Your task to perform on an android device: Go to network settings Image 0: 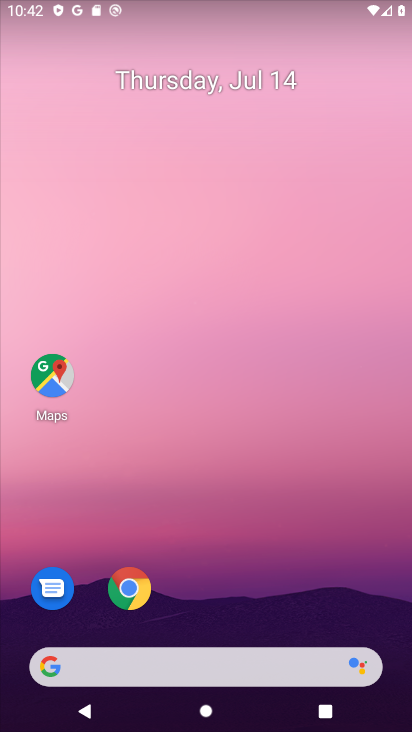
Step 0: press home button
Your task to perform on an android device: Go to network settings Image 1: 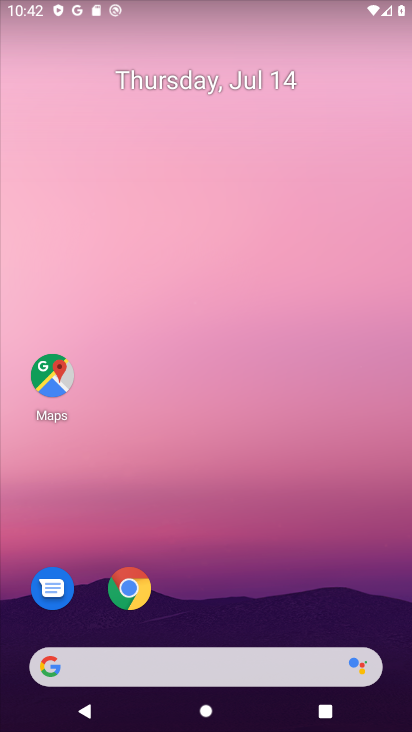
Step 1: drag from (294, 612) to (289, 107)
Your task to perform on an android device: Go to network settings Image 2: 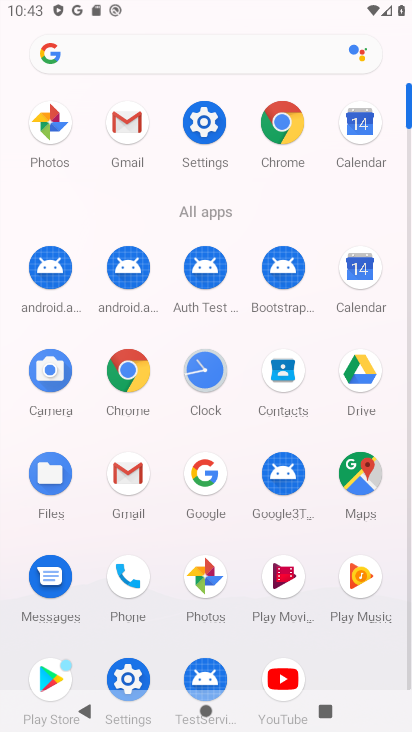
Step 2: click (130, 677)
Your task to perform on an android device: Go to network settings Image 3: 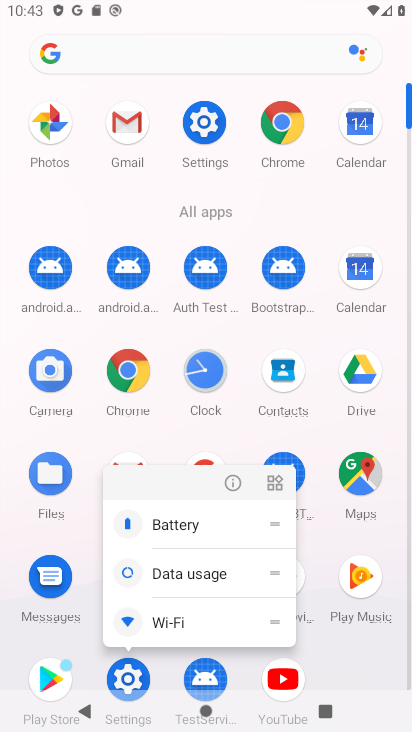
Step 3: click (128, 672)
Your task to perform on an android device: Go to network settings Image 4: 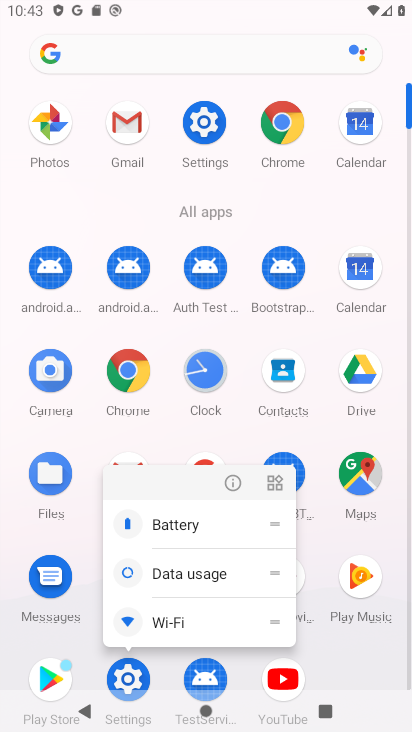
Step 4: click (128, 672)
Your task to perform on an android device: Go to network settings Image 5: 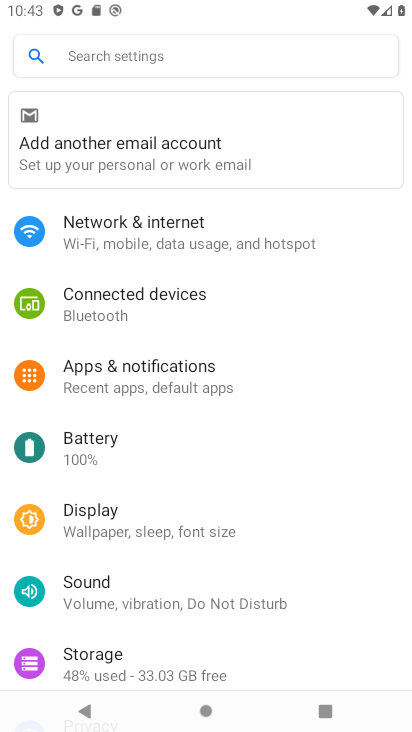
Step 5: click (147, 232)
Your task to perform on an android device: Go to network settings Image 6: 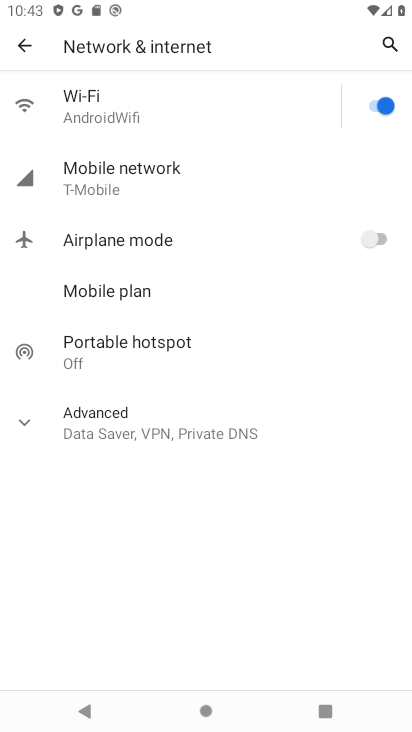
Step 6: task complete